Your task to perform on an android device: Open maps Image 0: 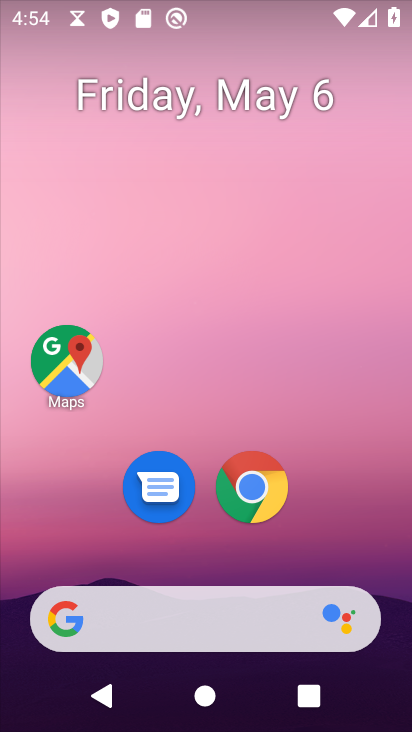
Step 0: click (67, 364)
Your task to perform on an android device: Open maps Image 1: 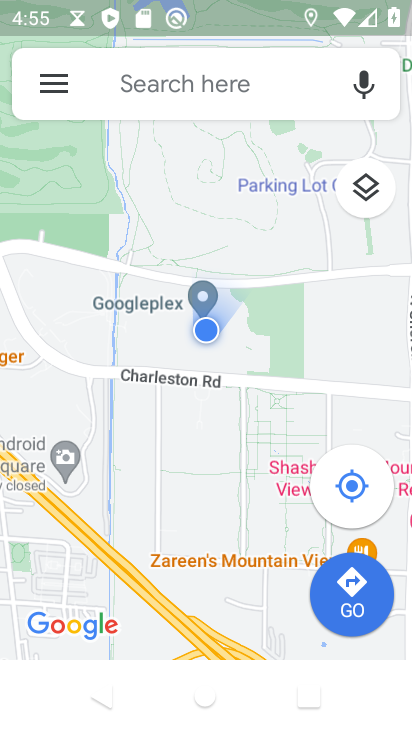
Step 1: task complete